Your task to perform on an android device: all mails in gmail Image 0: 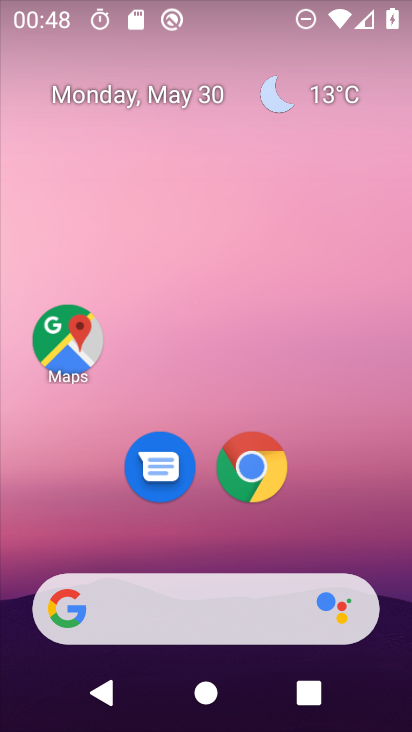
Step 0: drag from (198, 542) to (191, 213)
Your task to perform on an android device: all mails in gmail Image 1: 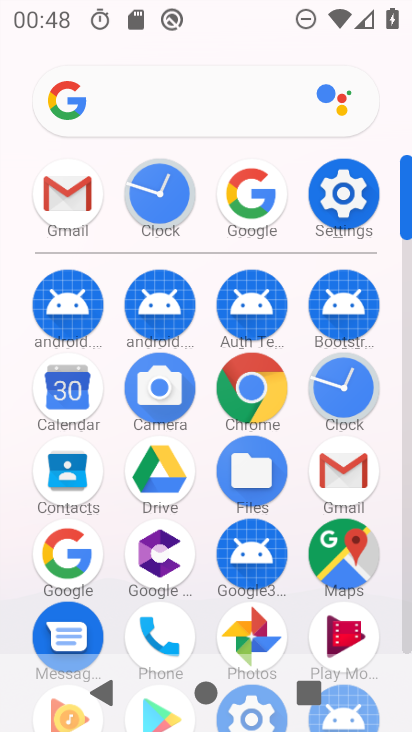
Step 1: click (69, 209)
Your task to perform on an android device: all mails in gmail Image 2: 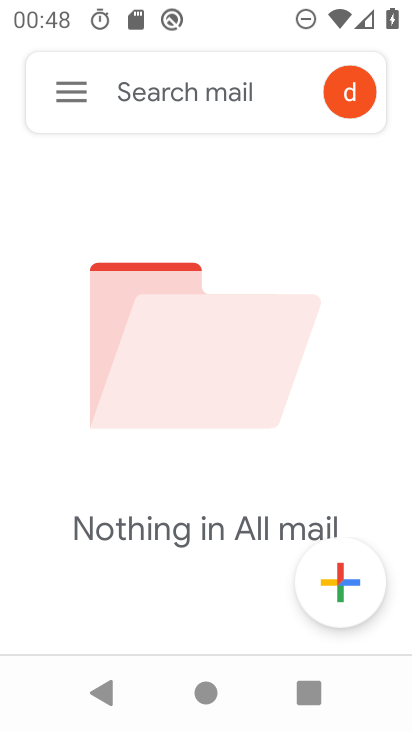
Step 2: click (76, 103)
Your task to perform on an android device: all mails in gmail Image 3: 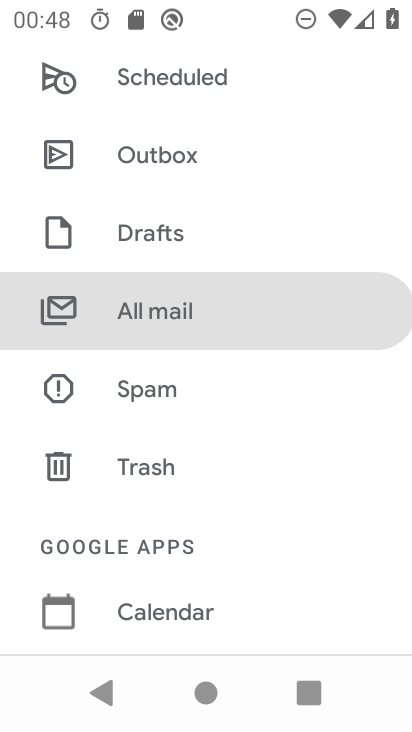
Step 3: click (152, 331)
Your task to perform on an android device: all mails in gmail Image 4: 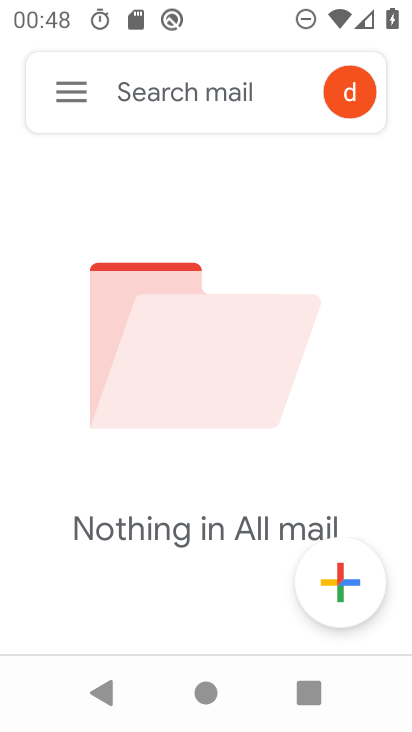
Step 4: task complete